Your task to perform on an android device: turn off javascript in the chrome app Image 0: 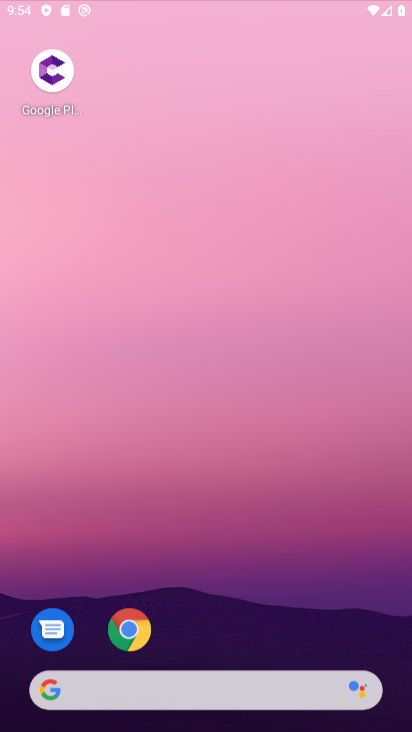
Step 0: press home button
Your task to perform on an android device: turn off javascript in the chrome app Image 1: 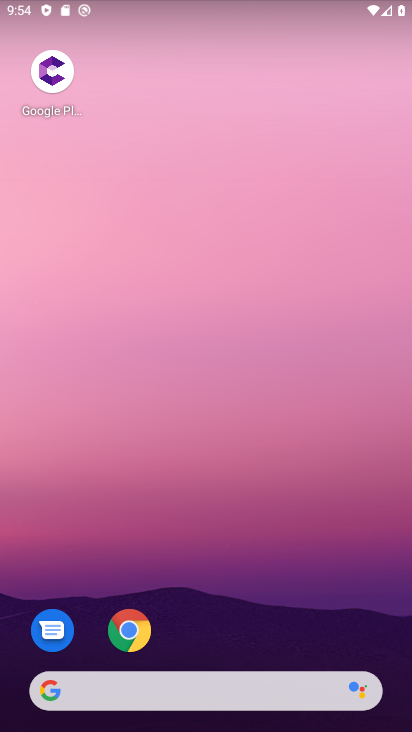
Step 1: click (125, 624)
Your task to perform on an android device: turn off javascript in the chrome app Image 2: 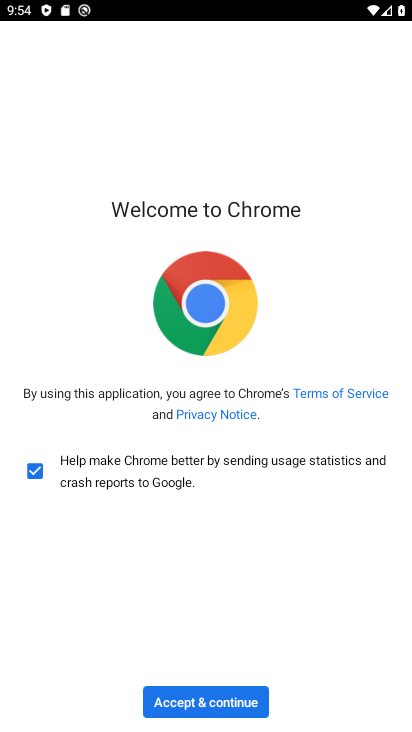
Step 2: click (216, 700)
Your task to perform on an android device: turn off javascript in the chrome app Image 3: 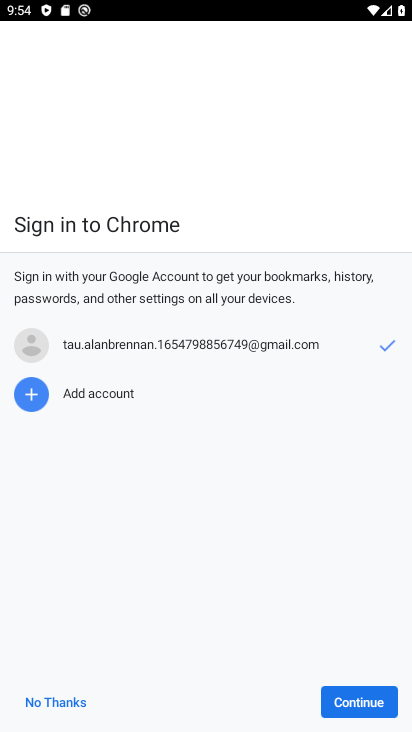
Step 3: click (338, 704)
Your task to perform on an android device: turn off javascript in the chrome app Image 4: 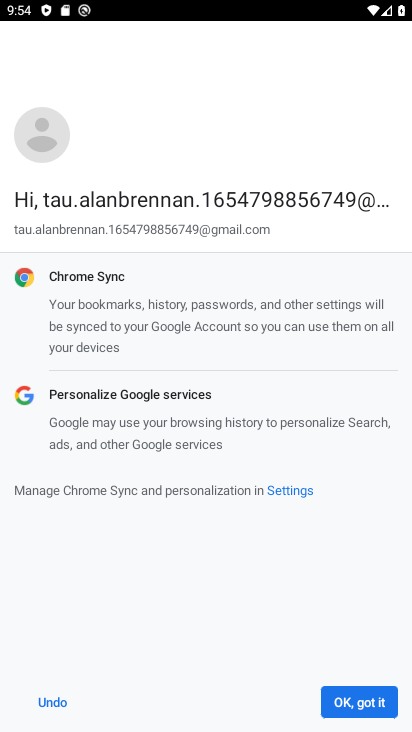
Step 4: click (339, 705)
Your task to perform on an android device: turn off javascript in the chrome app Image 5: 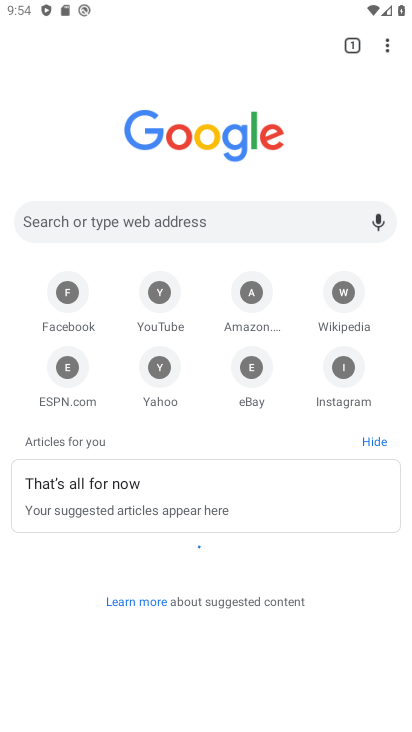
Step 5: click (383, 50)
Your task to perform on an android device: turn off javascript in the chrome app Image 6: 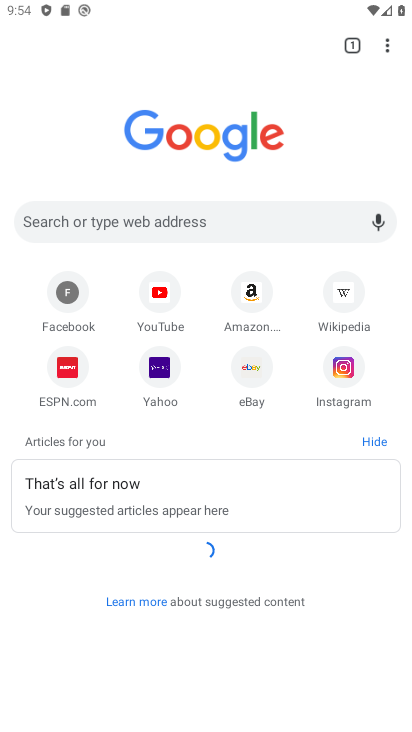
Step 6: click (385, 47)
Your task to perform on an android device: turn off javascript in the chrome app Image 7: 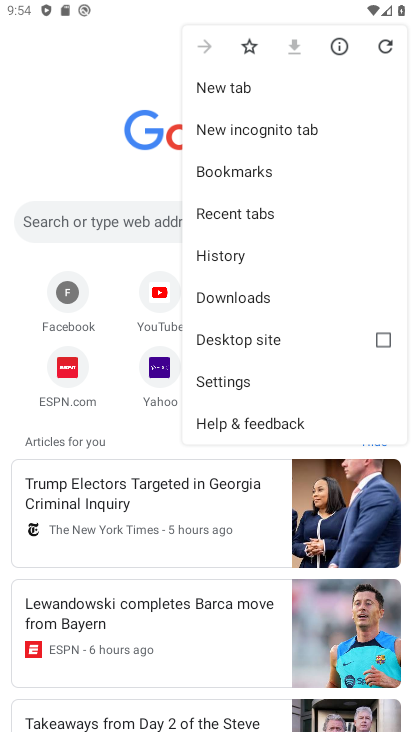
Step 7: click (218, 377)
Your task to perform on an android device: turn off javascript in the chrome app Image 8: 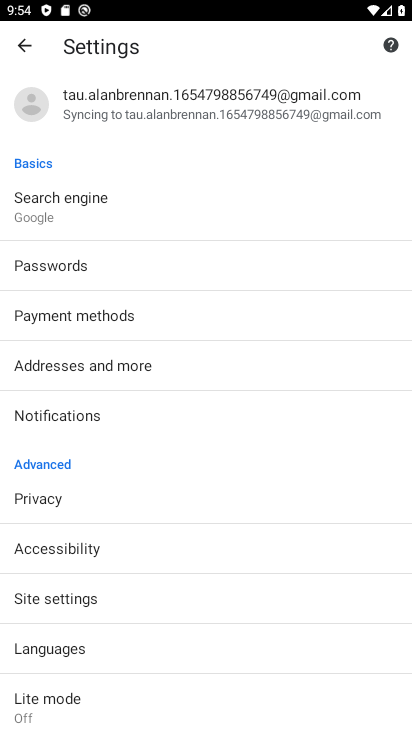
Step 8: click (63, 588)
Your task to perform on an android device: turn off javascript in the chrome app Image 9: 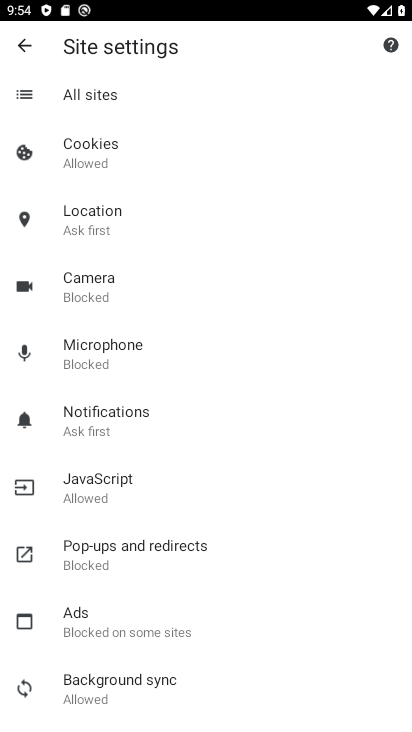
Step 9: click (94, 488)
Your task to perform on an android device: turn off javascript in the chrome app Image 10: 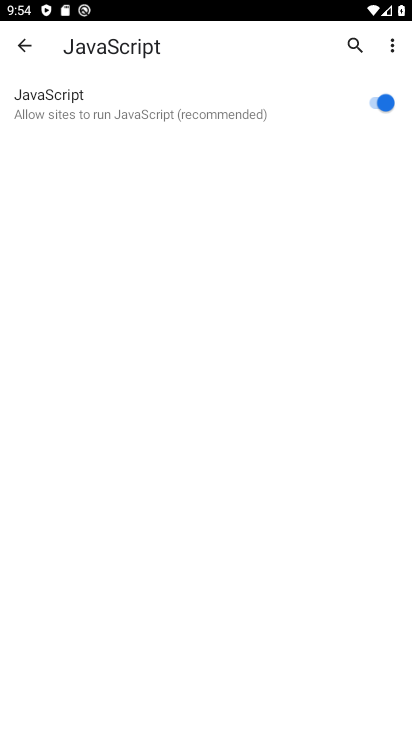
Step 10: click (383, 99)
Your task to perform on an android device: turn off javascript in the chrome app Image 11: 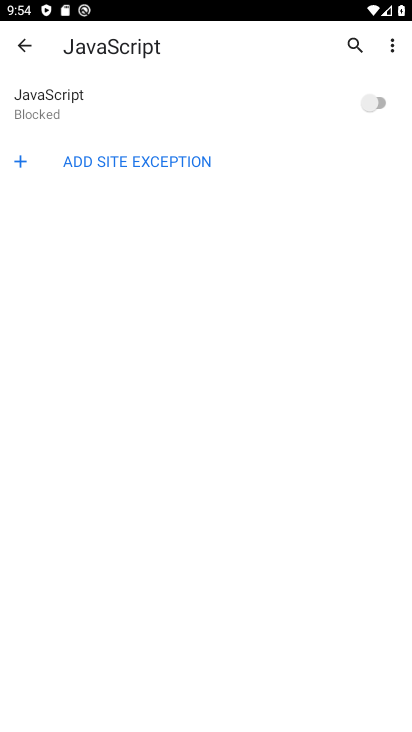
Step 11: task complete